Your task to perform on an android device: Open Google Maps and go to "Timeline" Image 0: 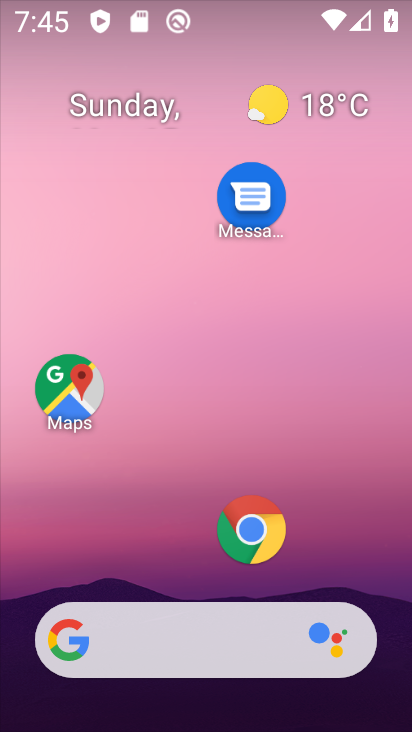
Step 0: click (55, 397)
Your task to perform on an android device: Open Google Maps and go to "Timeline" Image 1: 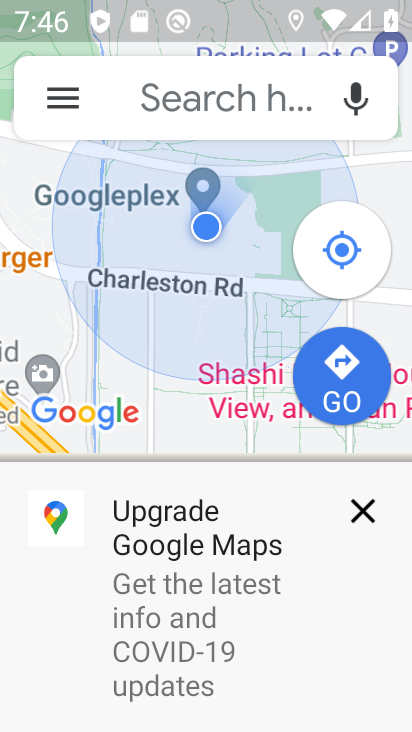
Step 1: click (353, 510)
Your task to perform on an android device: Open Google Maps and go to "Timeline" Image 2: 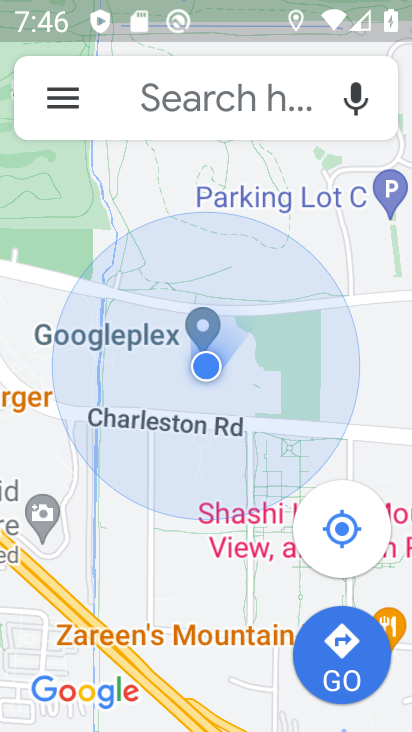
Step 2: click (210, 267)
Your task to perform on an android device: Open Google Maps and go to "Timeline" Image 3: 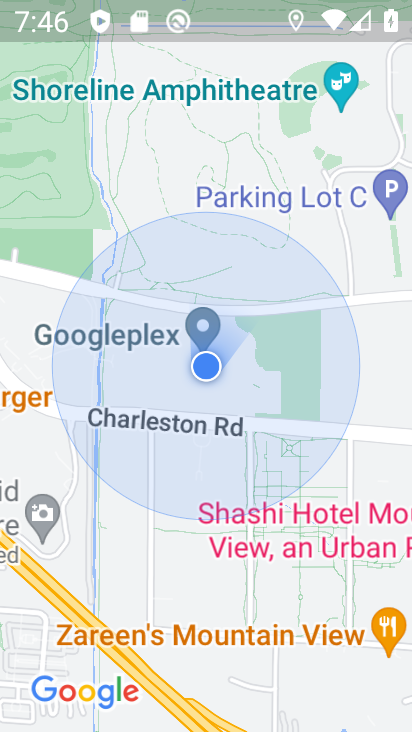
Step 3: click (65, 99)
Your task to perform on an android device: Open Google Maps and go to "Timeline" Image 4: 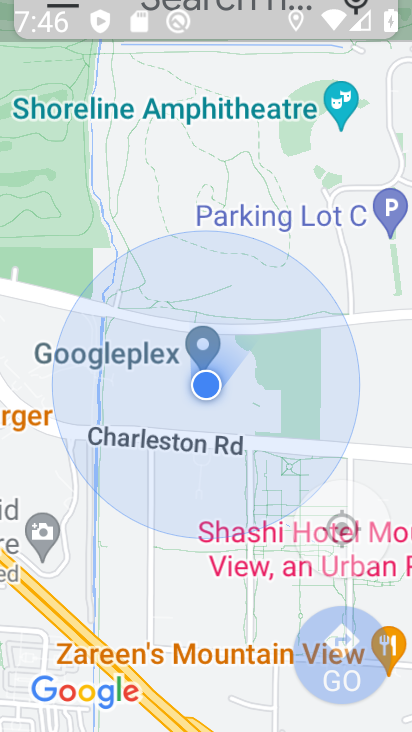
Step 4: drag from (211, 53) to (64, 99)
Your task to perform on an android device: Open Google Maps and go to "Timeline" Image 5: 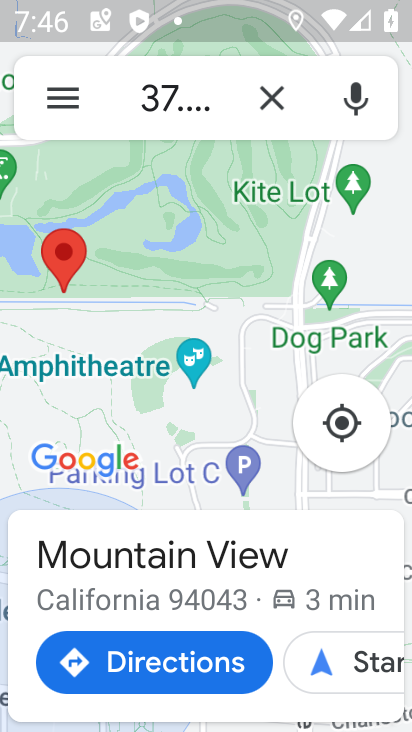
Step 5: click (59, 96)
Your task to perform on an android device: Open Google Maps and go to "Timeline" Image 6: 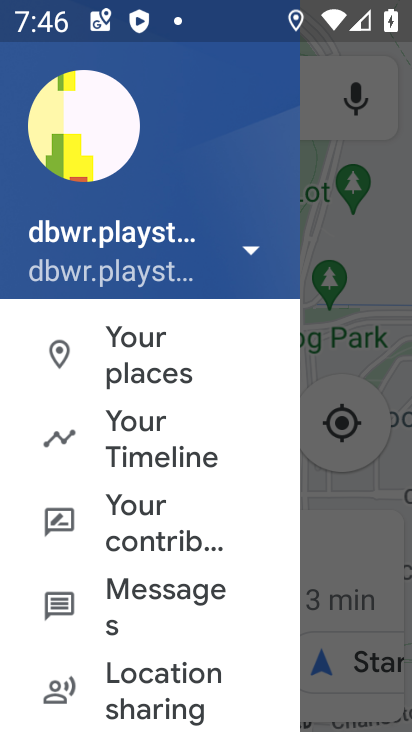
Step 6: click (149, 454)
Your task to perform on an android device: Open Google Maps and go to "Timeline" Image 7: 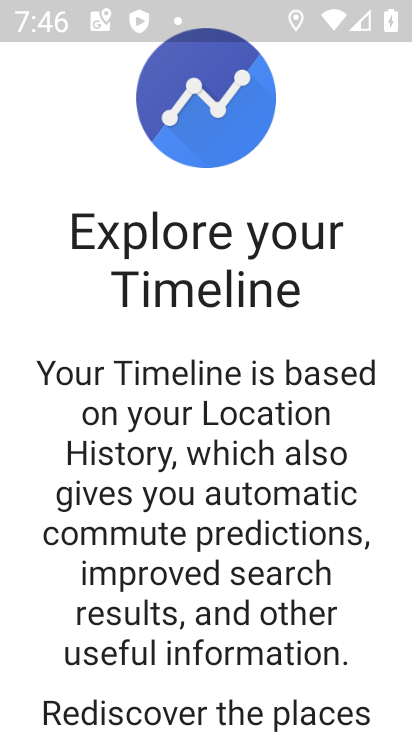
Step 7: drag from (230, 683) to (272, 294)
Your task to perform on an android device: Open Google Maps and go to "Timeline" Image 8: 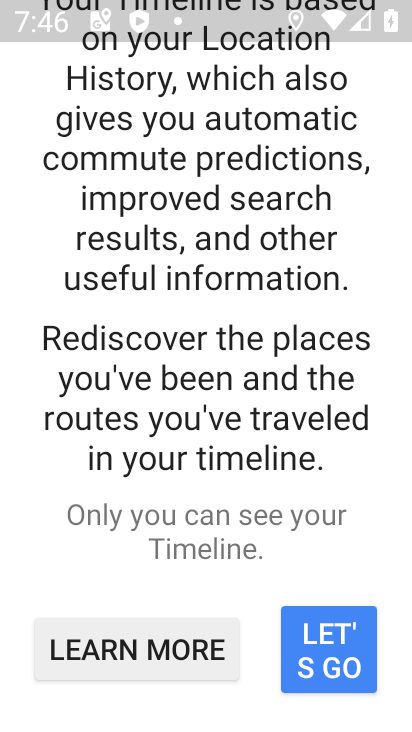
Step 8: click (236, 434)
Your task to perform on an android device: Open Google Maps and go to "Timeline" Image 9: 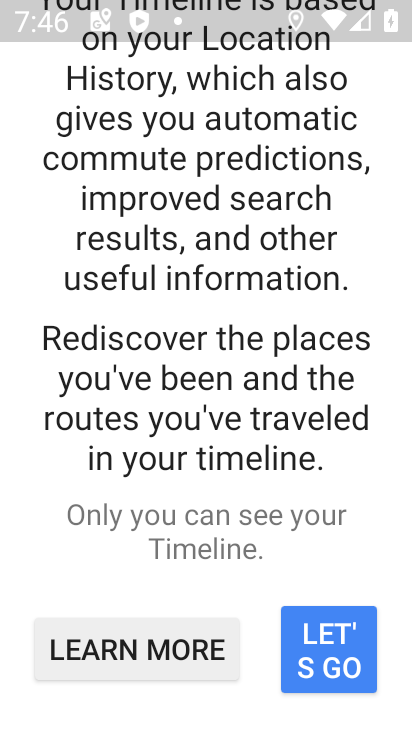
Step 9: click (335, 659)
Your task to perform on an android device: Open Google Maps and go to "Timeline" Image 10: 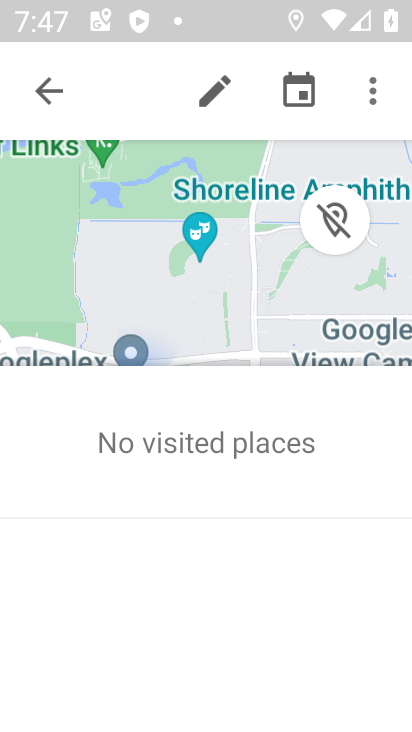
Step 10: task complete